Your task to perform on an android device: Open Chrome and go to settings Image 0: 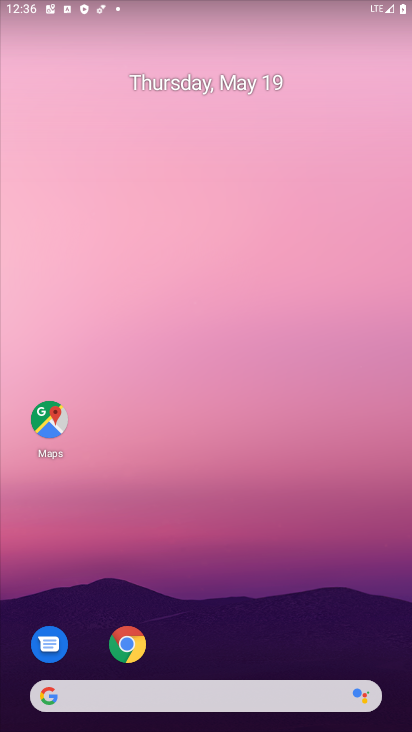
Step 0: drag from (371, 620) to (246, 92)
Your task to perform on an android device: Open Chrome and go to settings Image 1: 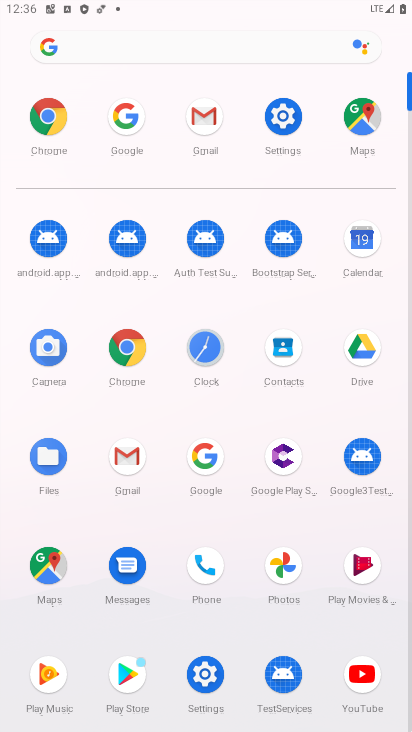
Step 1: click (141, 359)
Your task to perform on an android device: Open Chrome and go to settings Image 2: 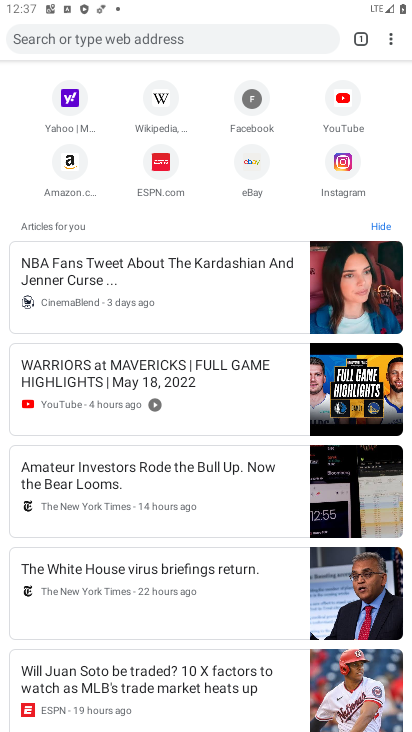
Step 2: click (392, 43)
Your task to perform on an android device: Open Chrome and go to settings Image 3: 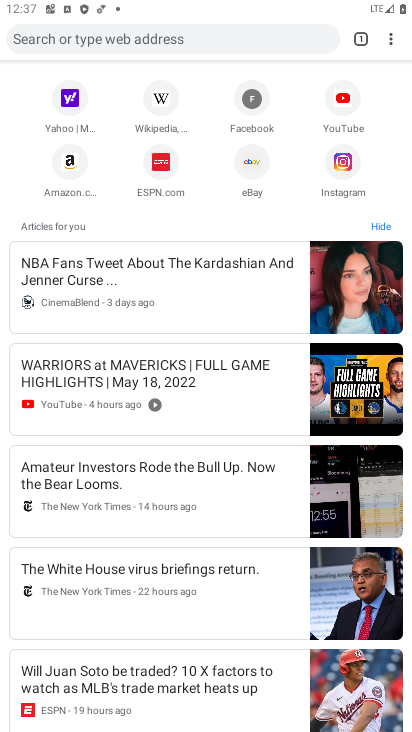
Step 3: click (392, 43)
Your task to perform on an android device: Open Chrome and go to settings Image 4: 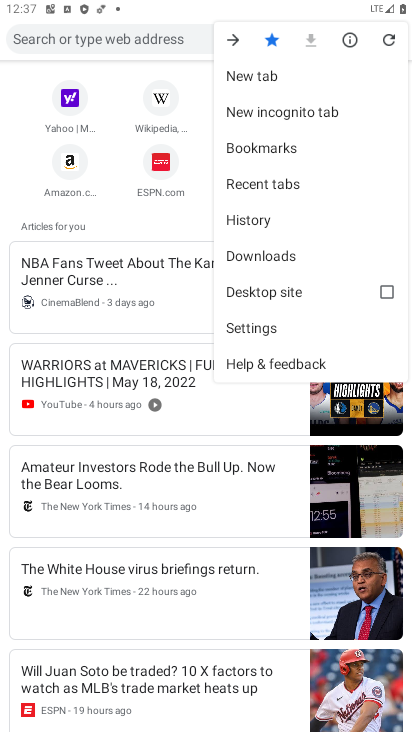
Step 4: click (288, 330)
Your task to perform on an android device: Open Chrome and go to settings Image 5: 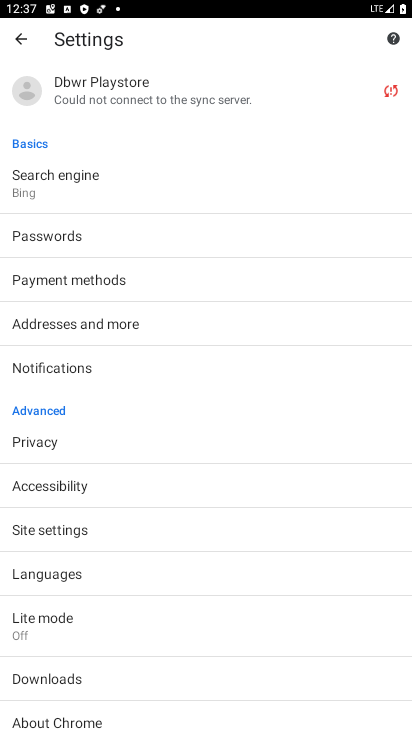
Step 5: task complete